Your task to perform on an android device: Open location settings Image 0: 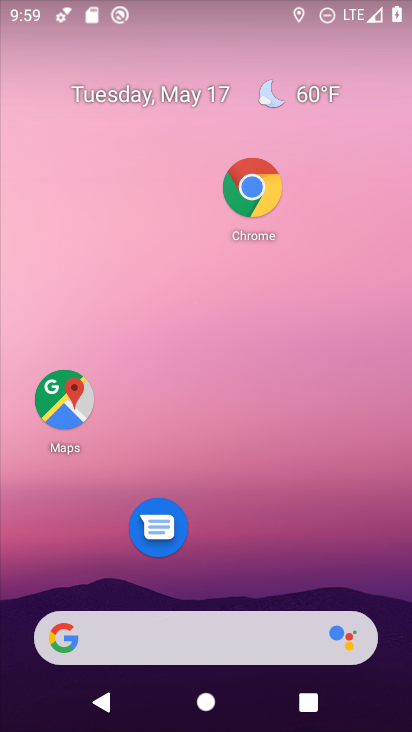
Step 0: drag from (268, 514) to (290, 18)
Your task to perform on an android device: Open location settings Image 1: 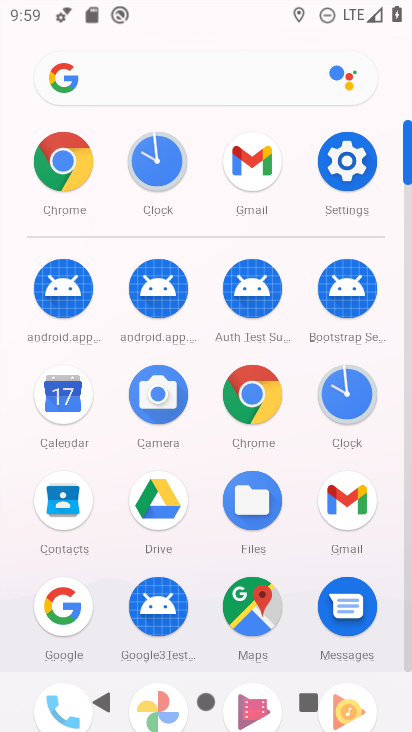
Step 1: click (363, 198)
Your task to perform on an android device: Open location settings Image 2: 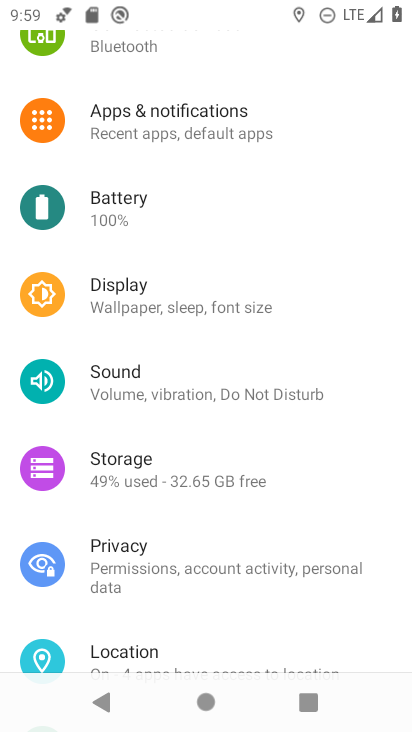
Step 2: click (258, 639)
Your task to perform on an android device: Open location settings Image 3: 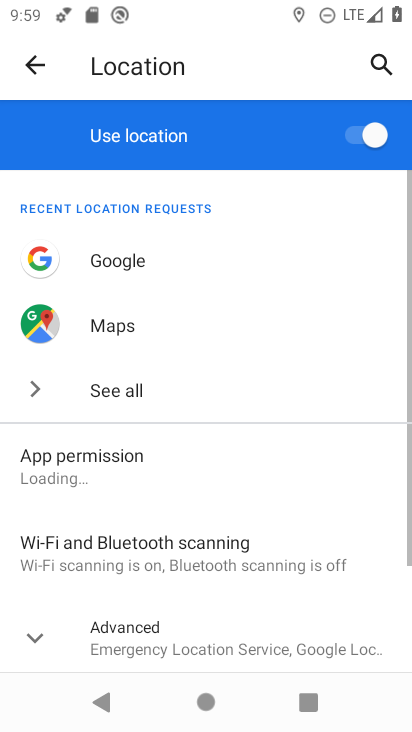
Step 3: task complete